Your task to perform on an android device: Go to settings Image 0: 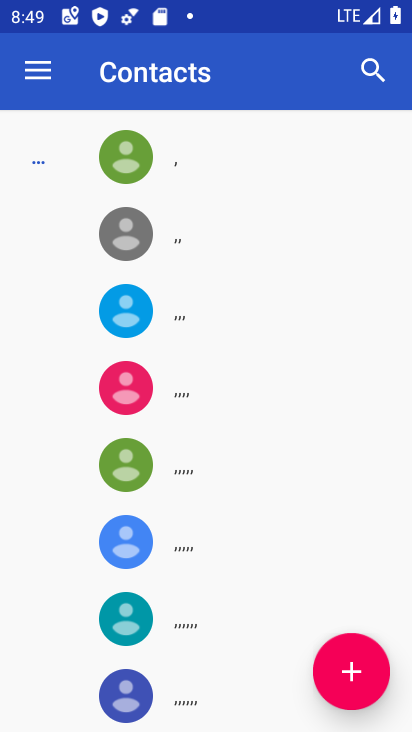
Step 0: press home button
Your task to perform on an android device: Go to settings Image 1: 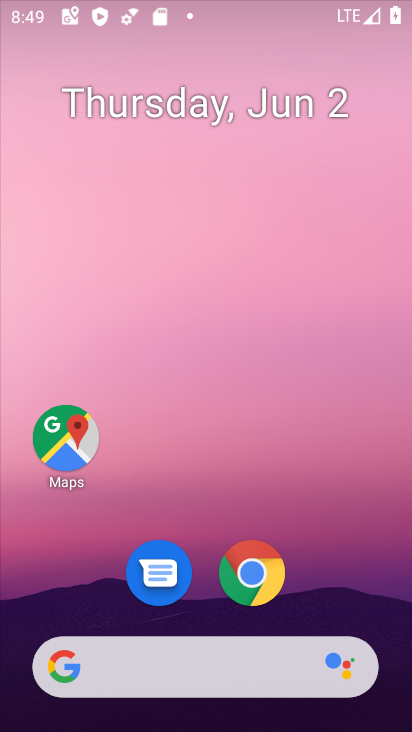
Step 1: drag from (282, 578) to (208, 144)
Your task to perform on an android device: Go to settings Image 2: 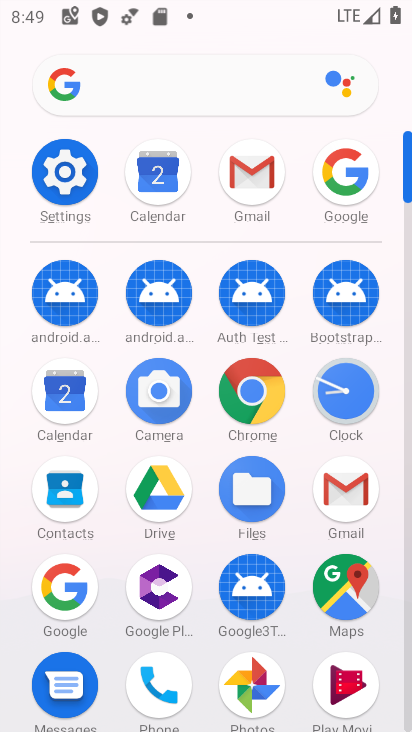
Step 2: click (63, 171)
Your task to perform on an android device: Go to settings Image 3: 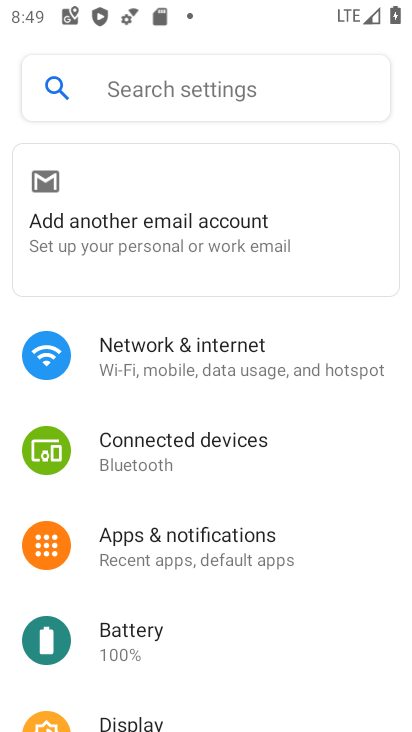
Step 3: task complete